Your task to perform on an android device: Toggle the flashlight Image 0: 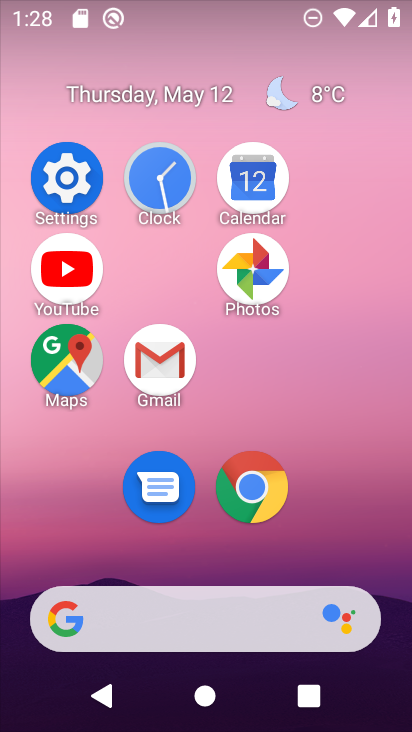
Step 0: drag from (265, 1) to (317, 439)
Your task to perform on an android device: Toggle the flashlight Image 1: 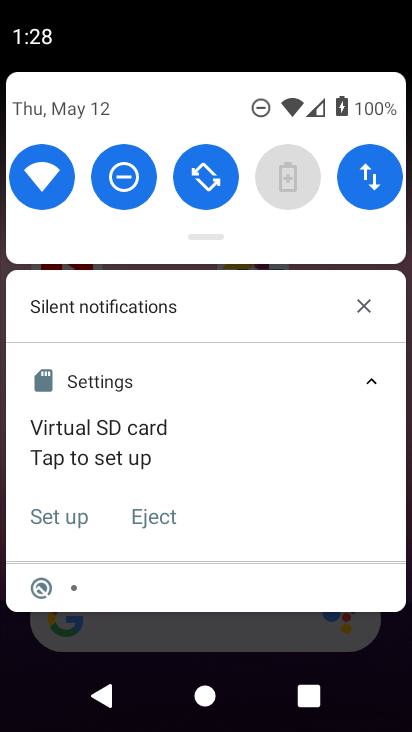
Step 1: task complete